Your task to perform on an android device: all mails in gmail Image 0: 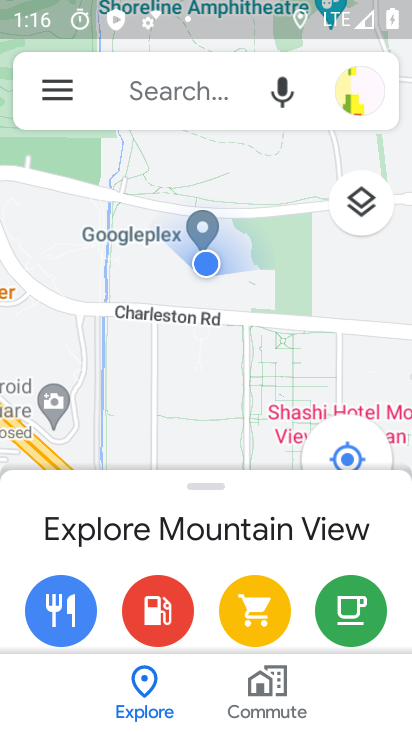
Step 0: press home button
Your task to perform on an android device: all mails in gmail Image 1: 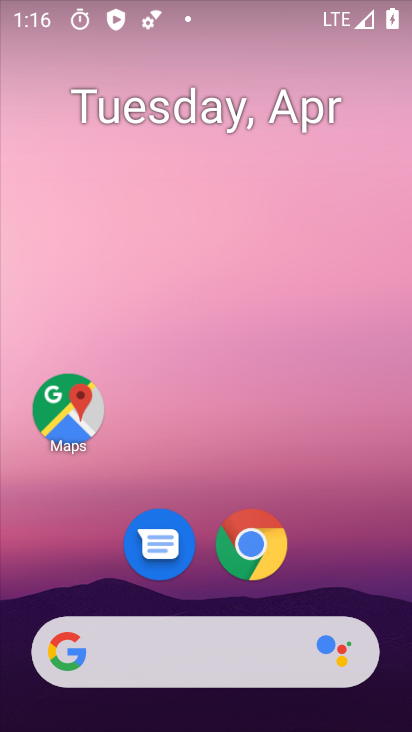
Step 1: drag from (372, 549) to (383, 91)
Your task to perform on an android device: all mails in gmail Image 2: 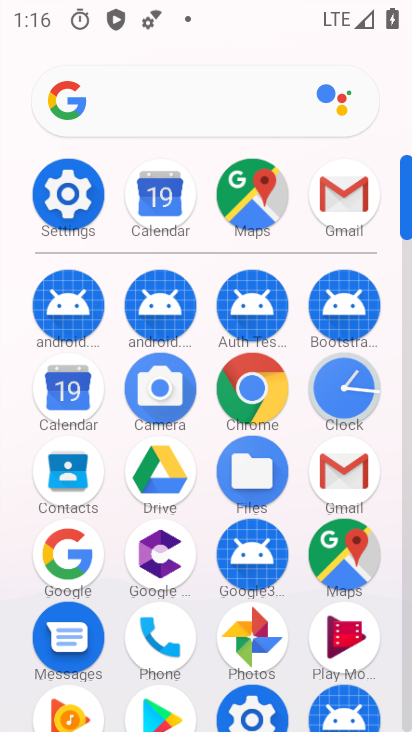
Step 2: click (350, 211)
Your task to perform on an android device: all mails in gmail Image 3: 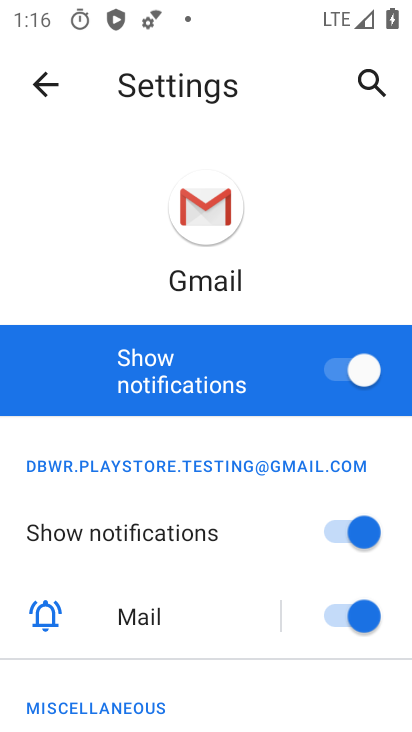
Step 3: click (37, 89)
Your task to perform on an android device: all mails in gmail Image 4: 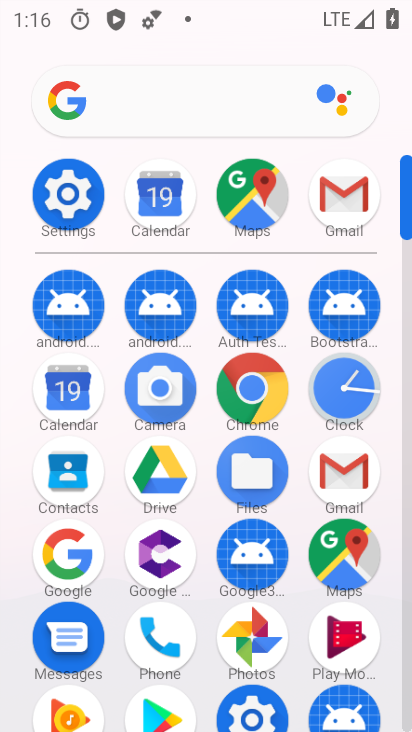
Step 4: click (339, 198)
Your task to perform on an android device: all mails in gmail Image 5: 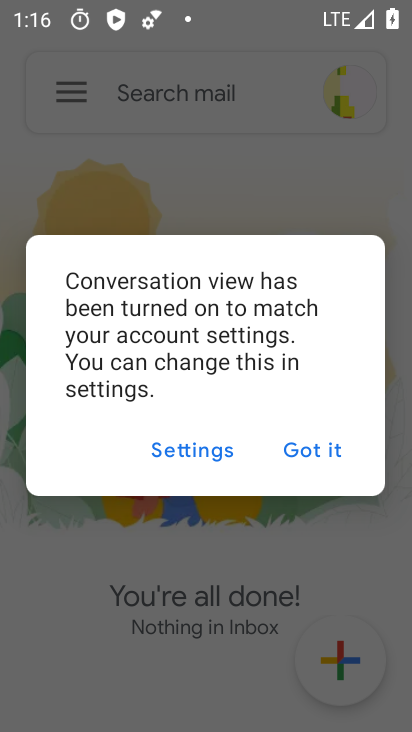
Step 5: click (300, 445)
Your task to perform on an android device: all mails in gmail Image 6: 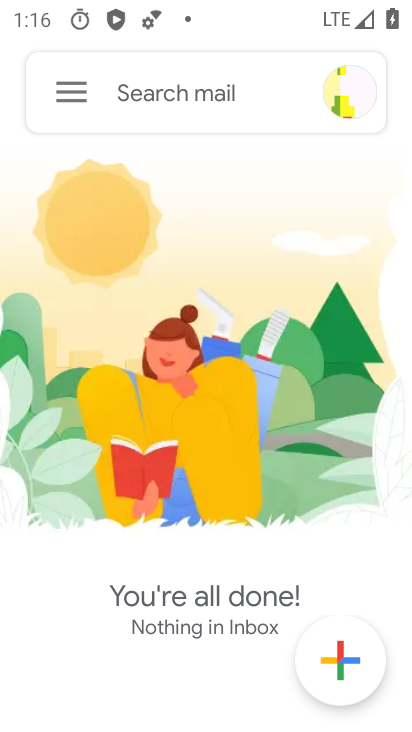
Step 6: click (70, 99)
Your task to perform on an android device: all mails in gmail Image 7: 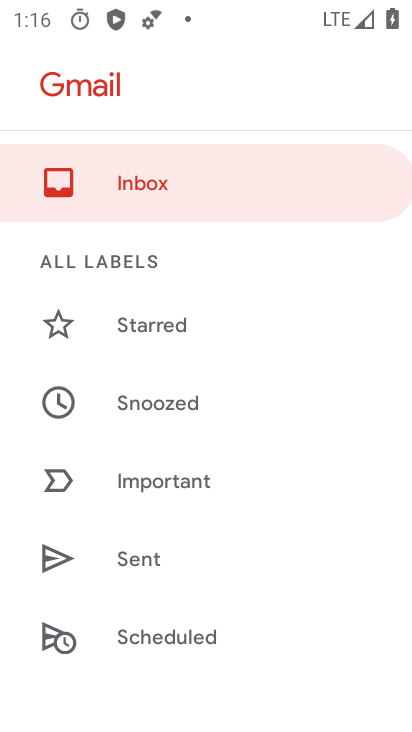
Step 7: drag from (306, 551) to (303, 250)
Your task to perform on an android device: all mails in gmail Image 8: 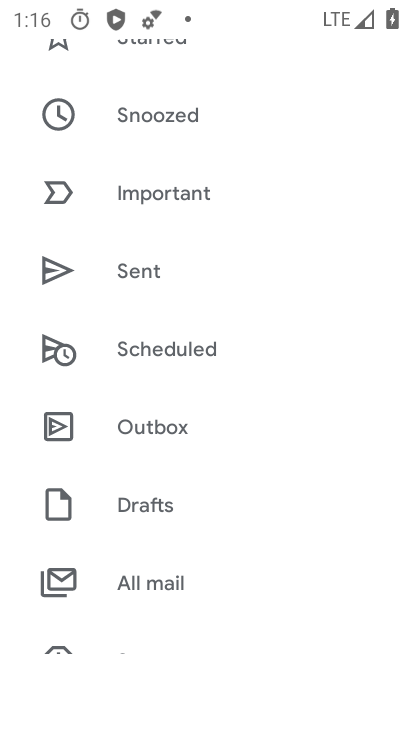
Step 8: click (130, 589)
Your task to perform on an android device: all mails in gmail Image 9: 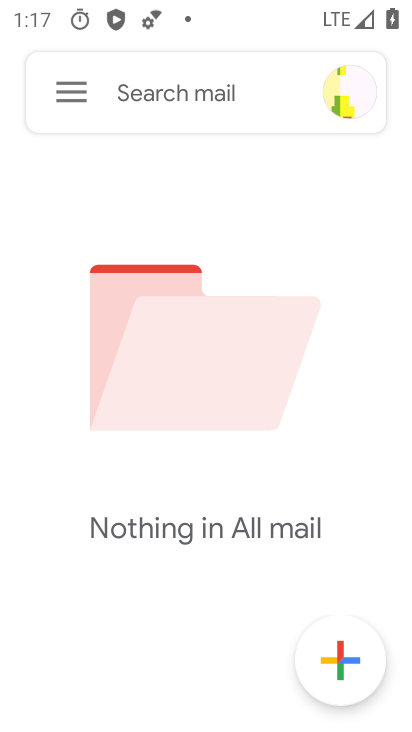
Step 9: task complete